Your task to perform on an android device: Open the calendar app, open the side menu, and click the "Day" option Image 0: 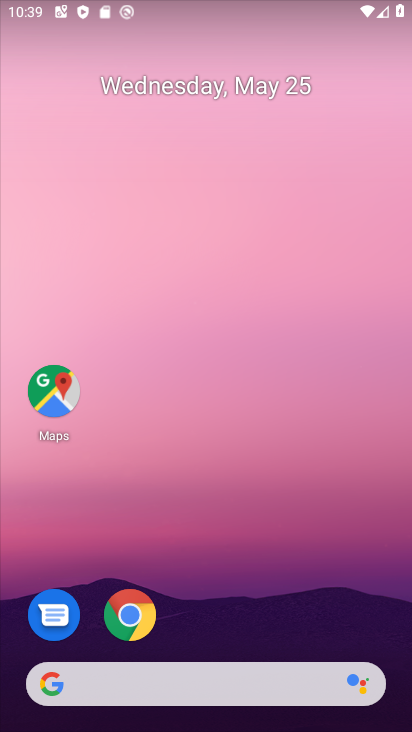
Step 0: drag from (306, 562) to (309, 142)
Your task to perform on an android device: Open the calendar app, open the side menu, and click the "Day" option Image 1: 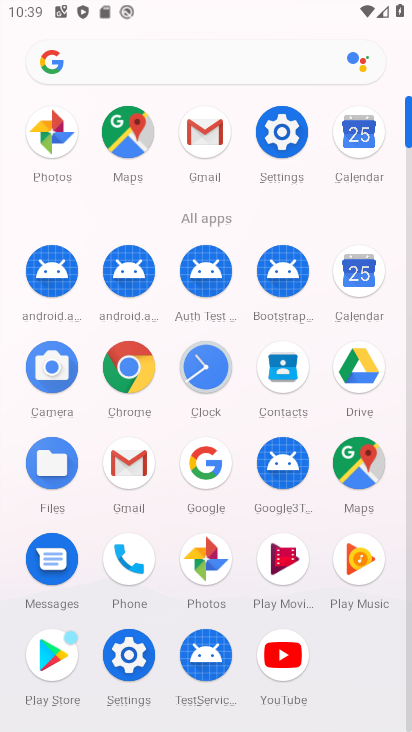
Step 1: click (370, 261)
Your task to perform on an android device: Open the calendar app, open the side menu, and click the "Day" option Image 2: 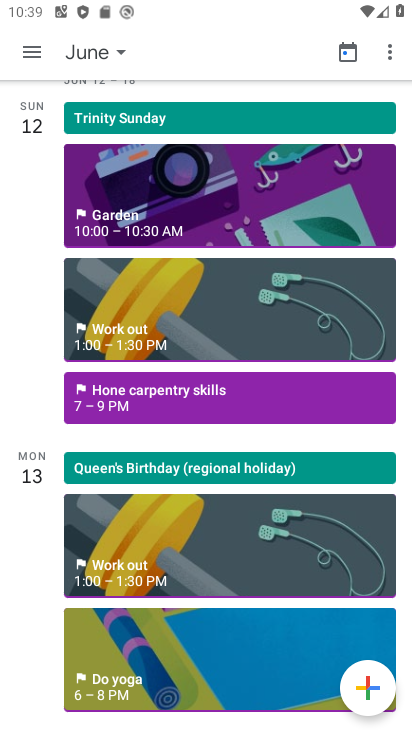
Step 2: click (39, 46)
Your task to perform on an android device: Open the calendar app, open the side menu, and click the "Day" option Image 3: 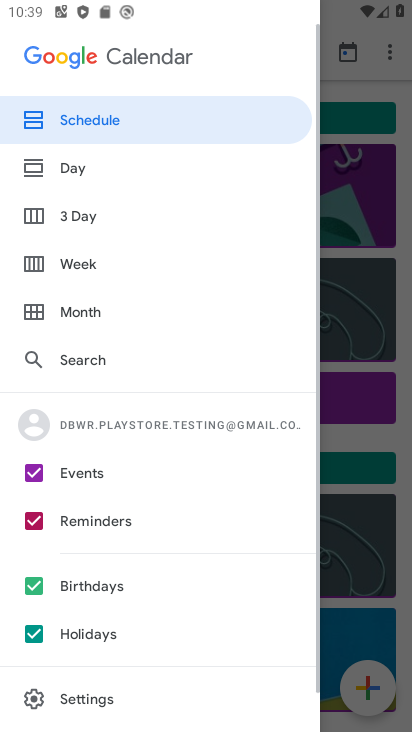
Step 3: click (88, 171)
Your task to perform on an android device: Open the calendar app, open the side menu, and click the "Day" option Image 4: 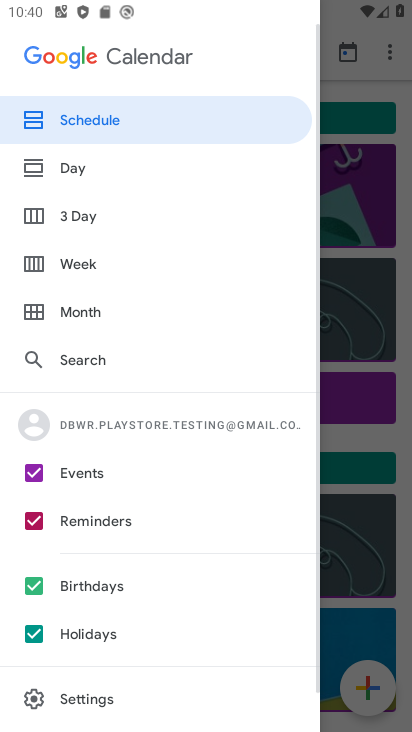
Step 4: click (88, 171)
Your task to perform on an android device: Open the calendar app, open the side menu, and click the "Day" option Image 5: 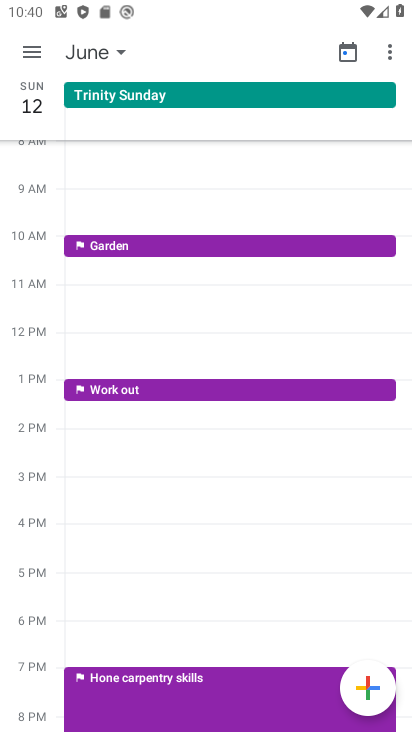
Step 5: task complete